Your task to perform on an android device: Clear the cart on walmart.com. Search for "rayovac triple a" on walmart.com, select the first entry, and add it to the cart. Image 0: 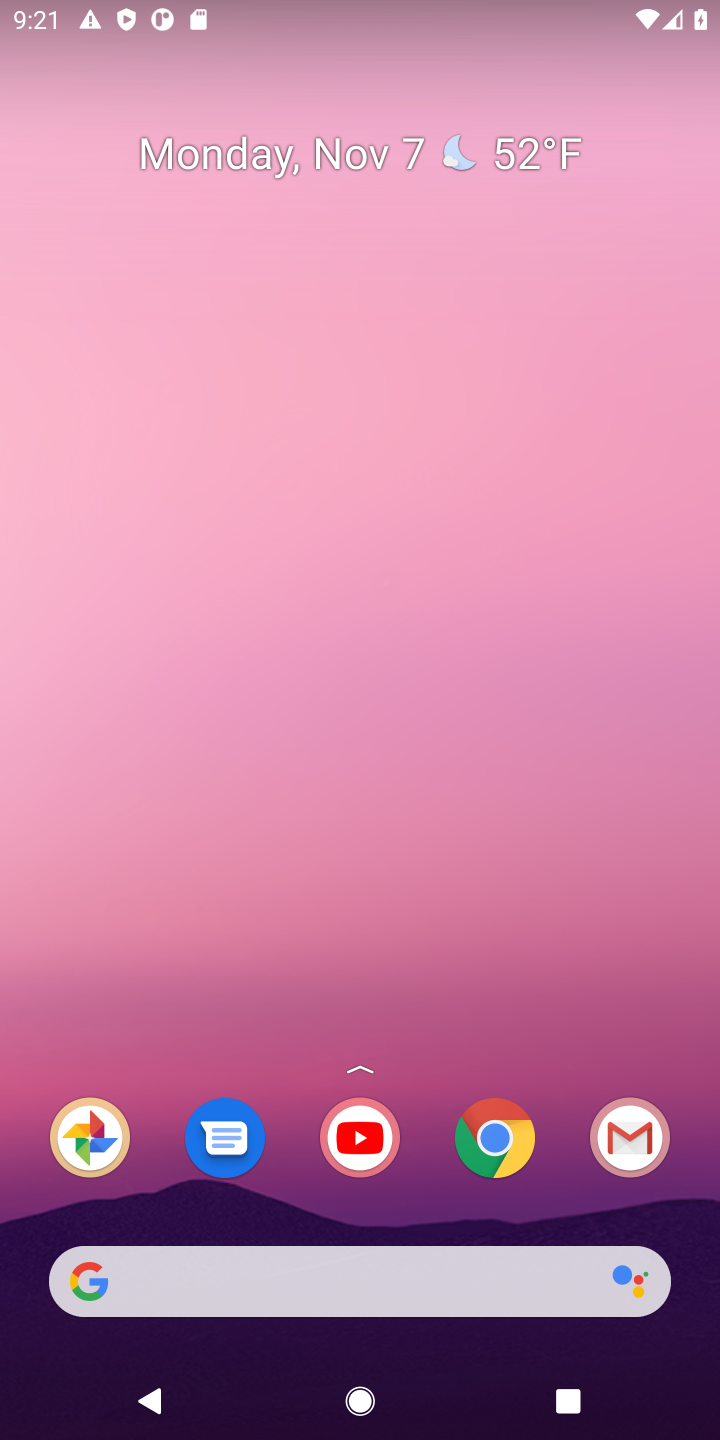
Step 0: drag from (427, 1211) to (470, 92)
Your task to perform on an android device: Clear the cart on walmart.com. Search for "rayovac triple a" on walmart.com, select the first entry, and add it to the cart. Image 1: 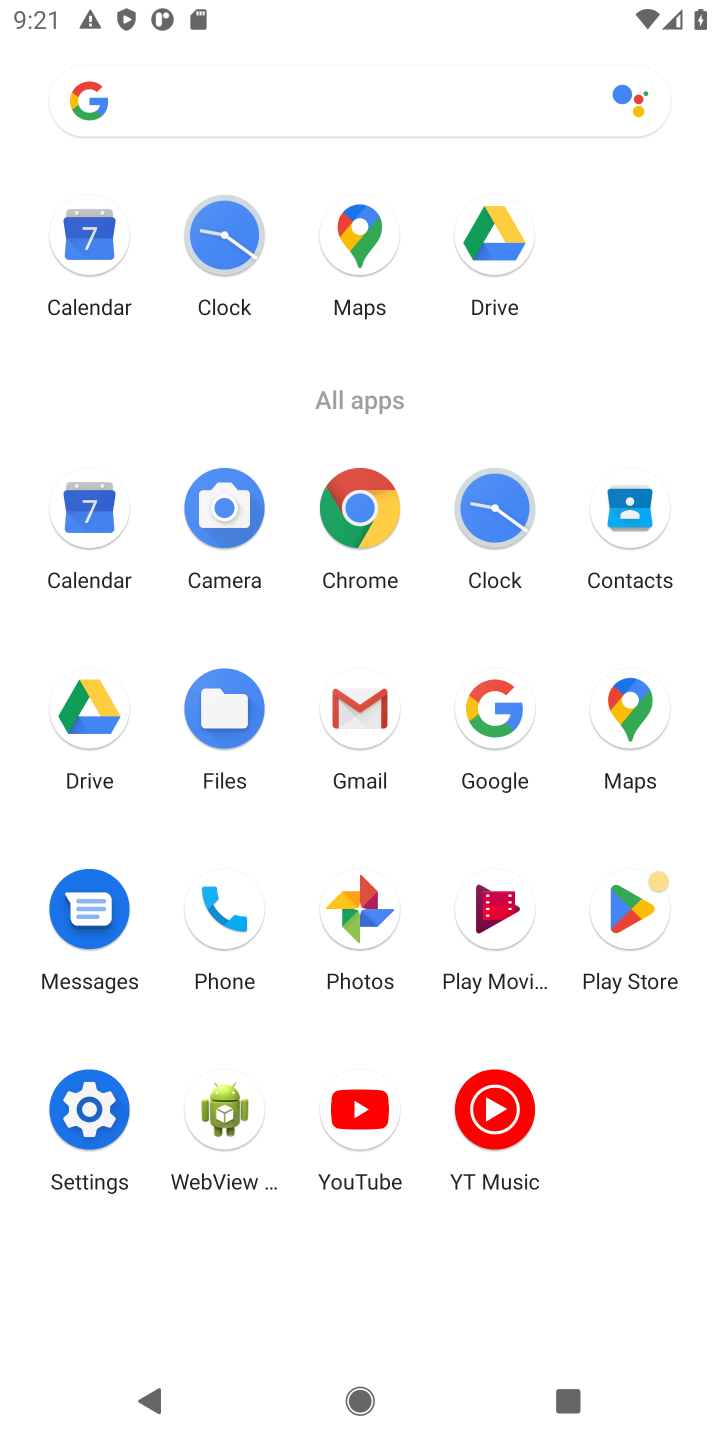
Step 1: click (359, 506)
Your task to perform on an android device: Clear the cart on walmart.com. Search for "rayovac triple a" on walmart.com, select the first entry, and add it to the cart. Image 2: 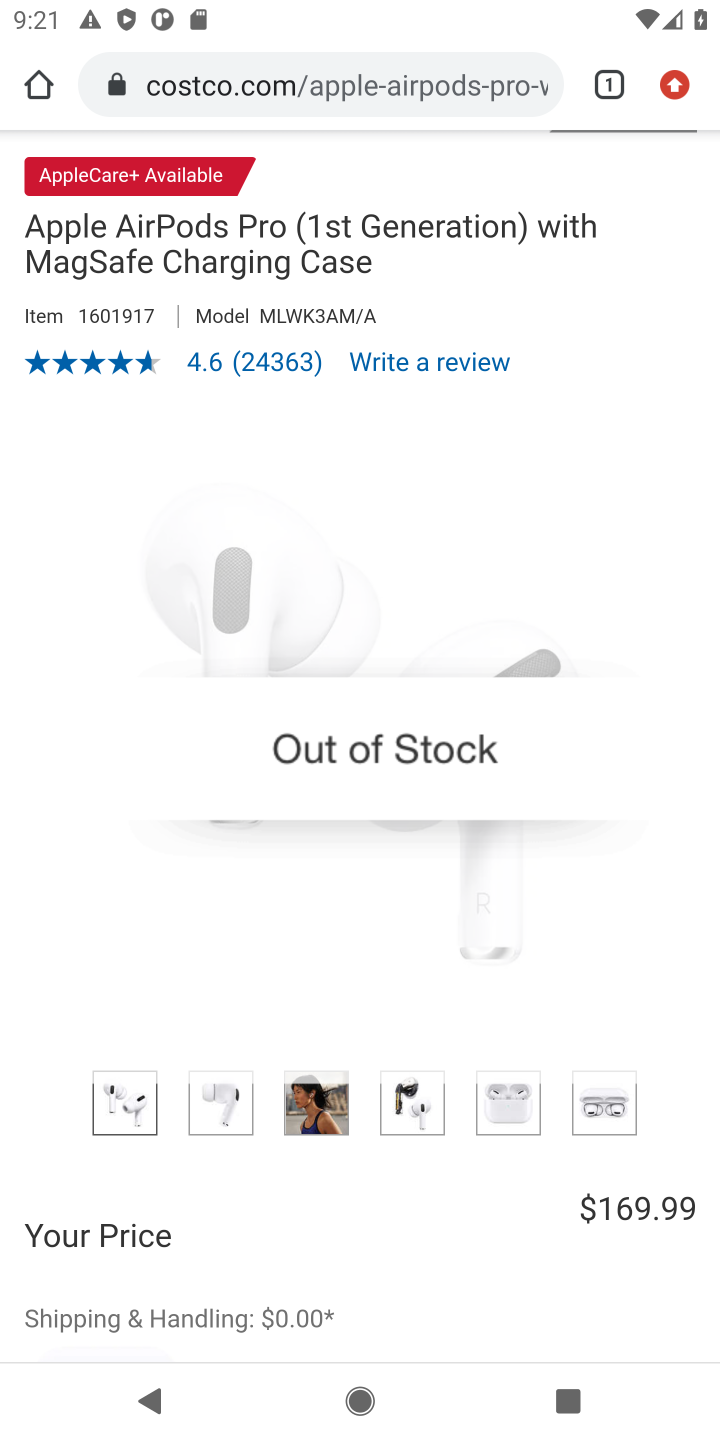
Step 2: click (448, 83)
Your task to perform on an android device: Clear the cart on walmart.com. Search for "rayovac triple a" on walmart.com, select the first entry, and add it to the cart. Image 3: 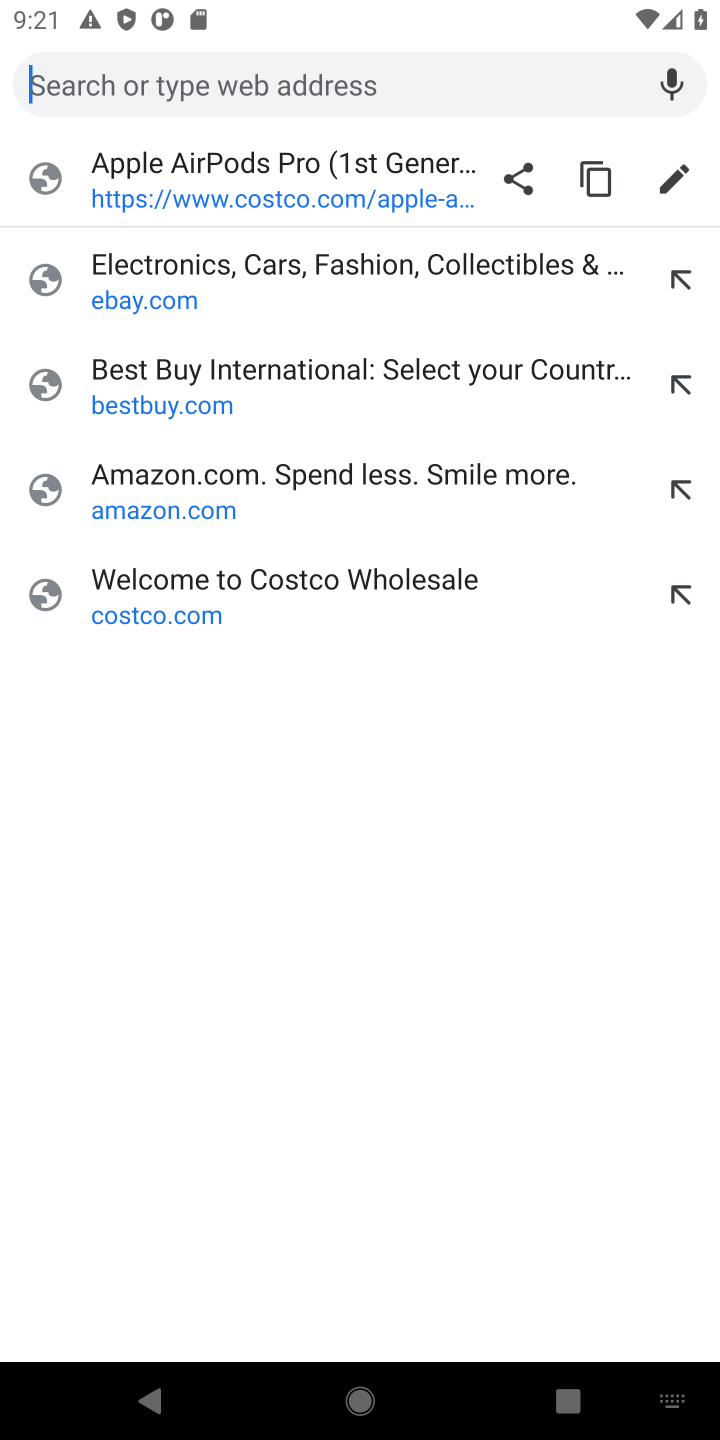
Step 3: type "walmart.com"
Your task to perform on an android device: Clear the cart on walmart.com. Search for "rayovac triple a" on walmart.com, select the first entry, and add it to the cart. Image 4: 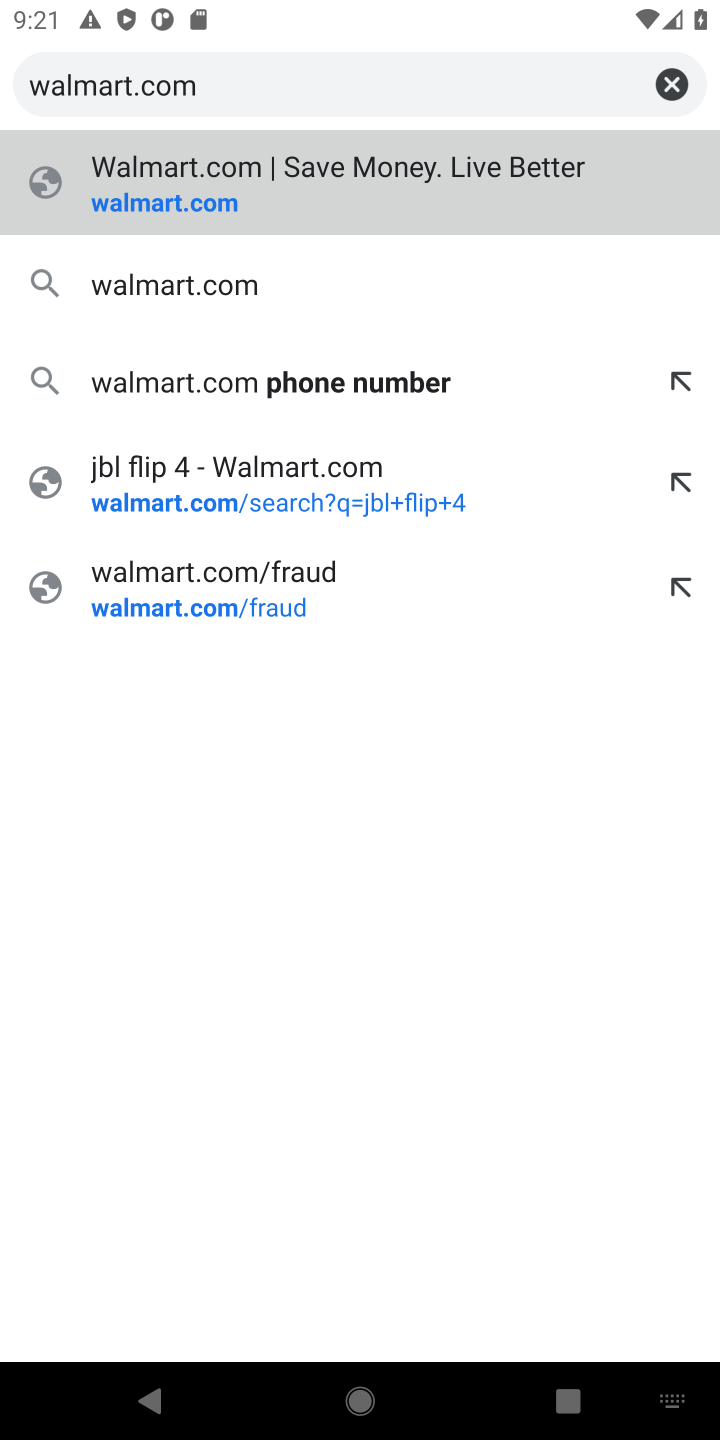
Step 4: press enter
Your task to perform on an android device: Clear the cart on walmart.com. Search for "rayovac triple a" on walmart.com, select the first entry, and add it to the cart. Image 5: 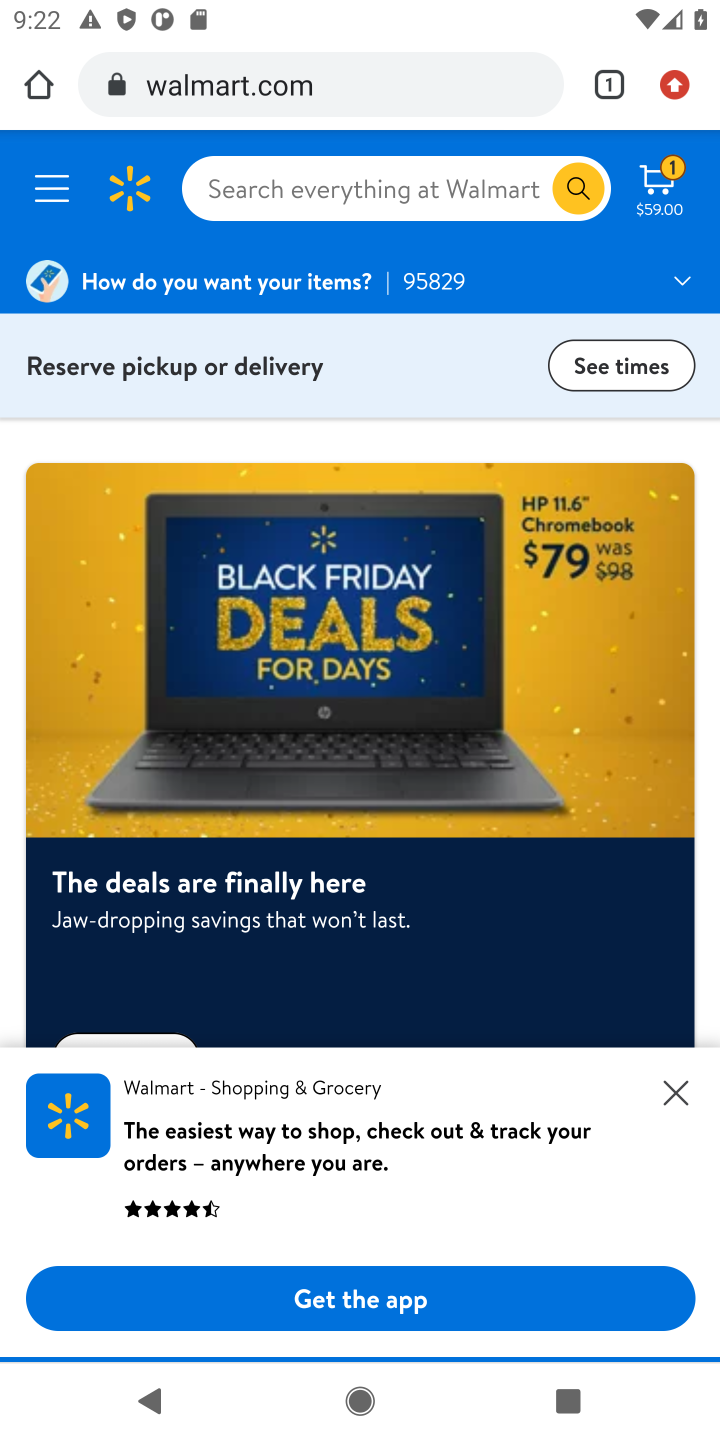
Step 5: click (658, 182)
Your task to perform on an android device: Clear the cart on walmart.com. Search for "rayovac triple a" on walmart.com, select the first entry, and add it to the cart. Image 6: 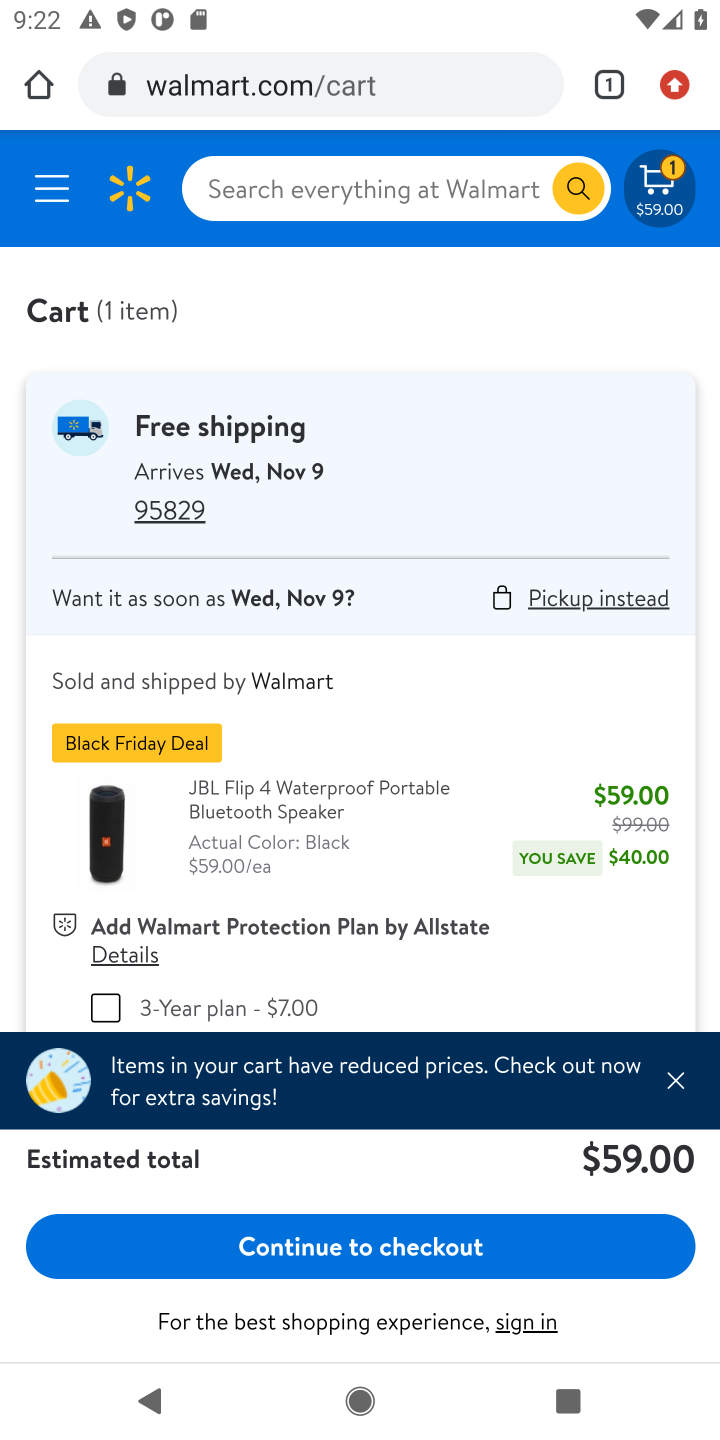
Step 6: drag from (334, 855) to (414, 392)
Your task to perform on an android device: Clear the cart on walmart.com. Search for "rayovac triple a" on walmart.com, select the first entry, and add it to the cart. Image 7: 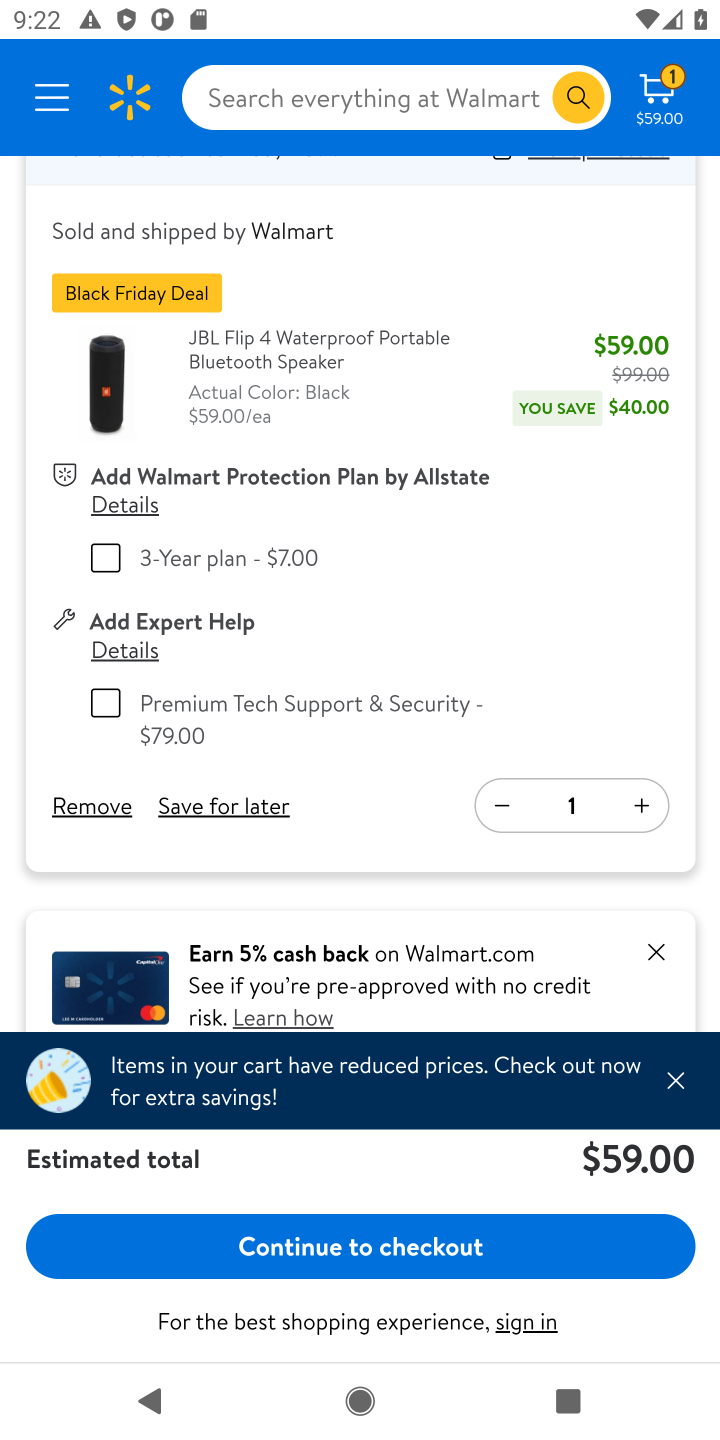
Step 7: click (92, 801)
Your task to perform on an android device: Clear the cart on walmart.com. Search for "rayovac triple a" on walmart.com, select the first entry, and add it to the cart. Image 8: 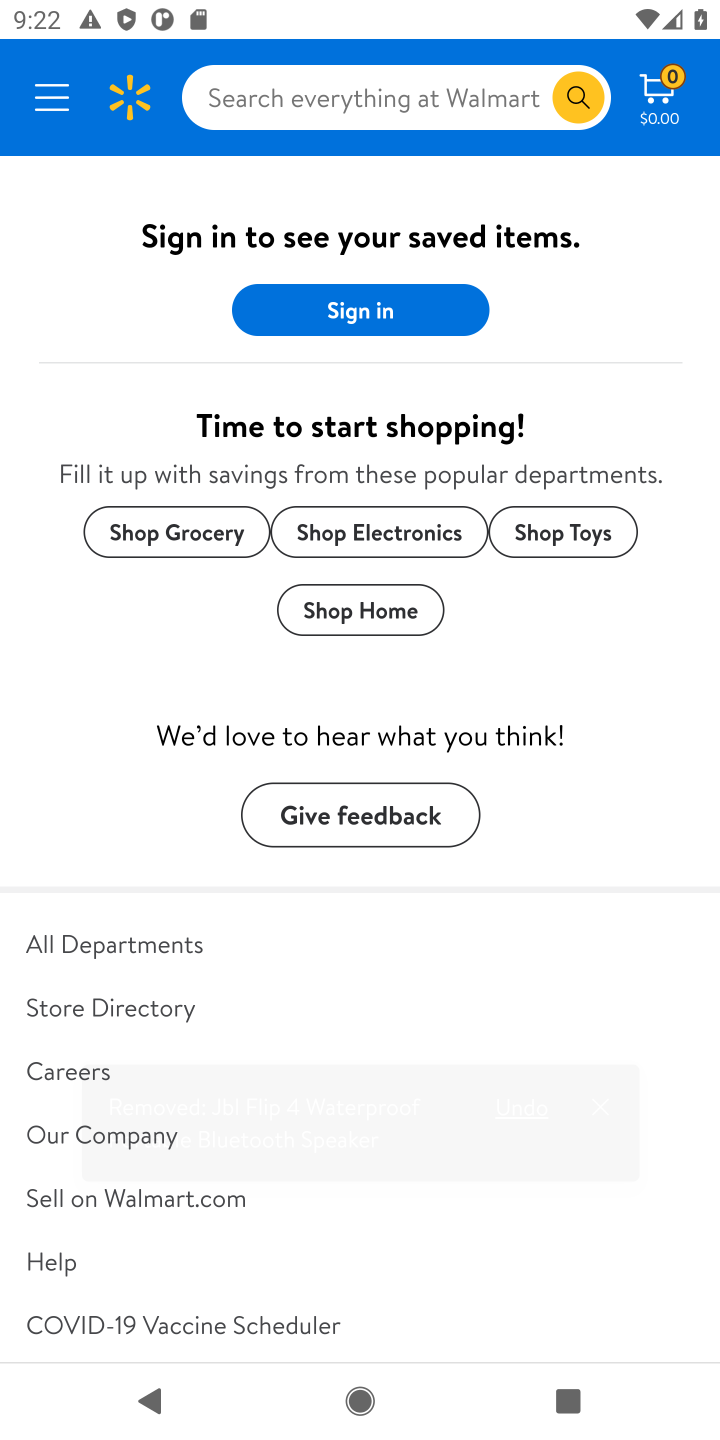
Step 8: click (411, 103)
Your task to perform on an android device: Clear the cart on walmart.com. Search for "rayovac triple a" on walmart.com, select the first entry, and add it to the cart. Image 9: 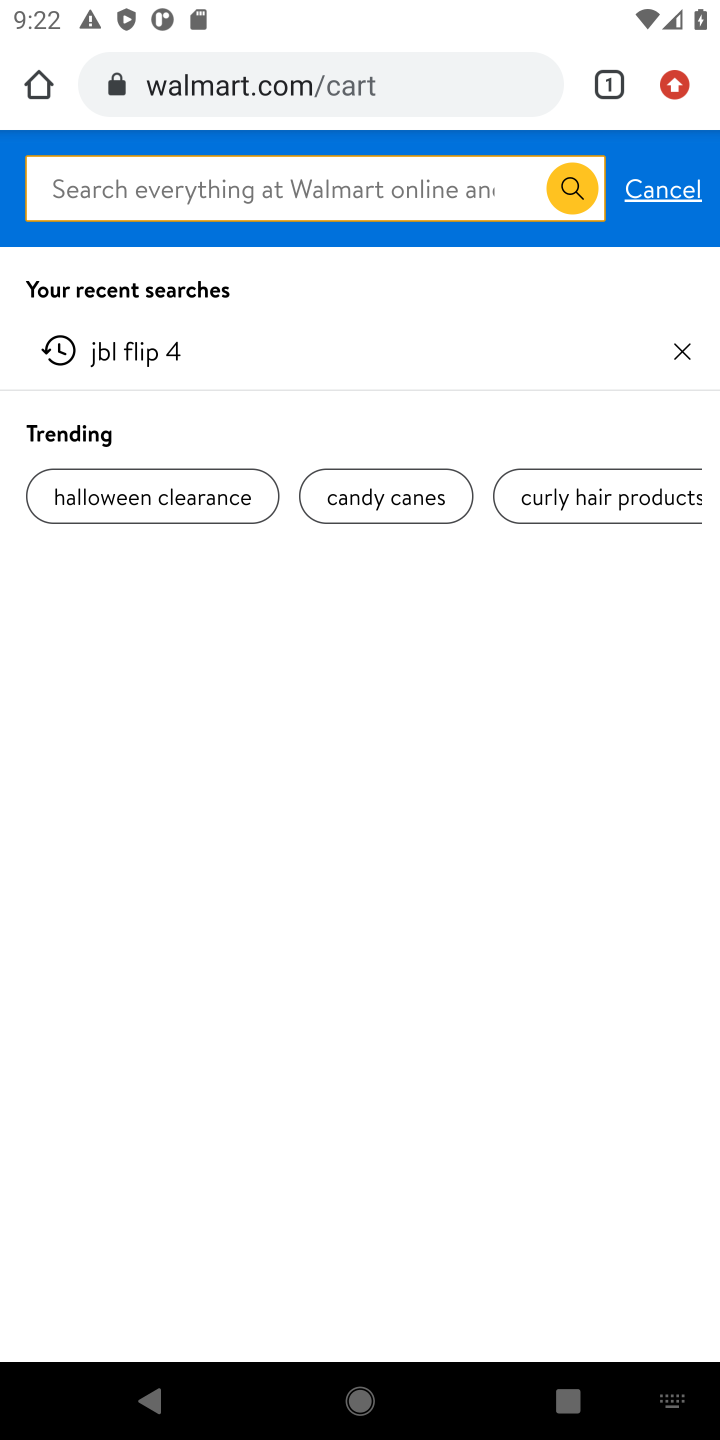
Step 9: type "rayovac triple a"
Your task to perform on an android device: Clear the cart on walmart.com. Search for "rayovac triple a" on walmart.com, select the first entry, and add it to the cart. Image 10: 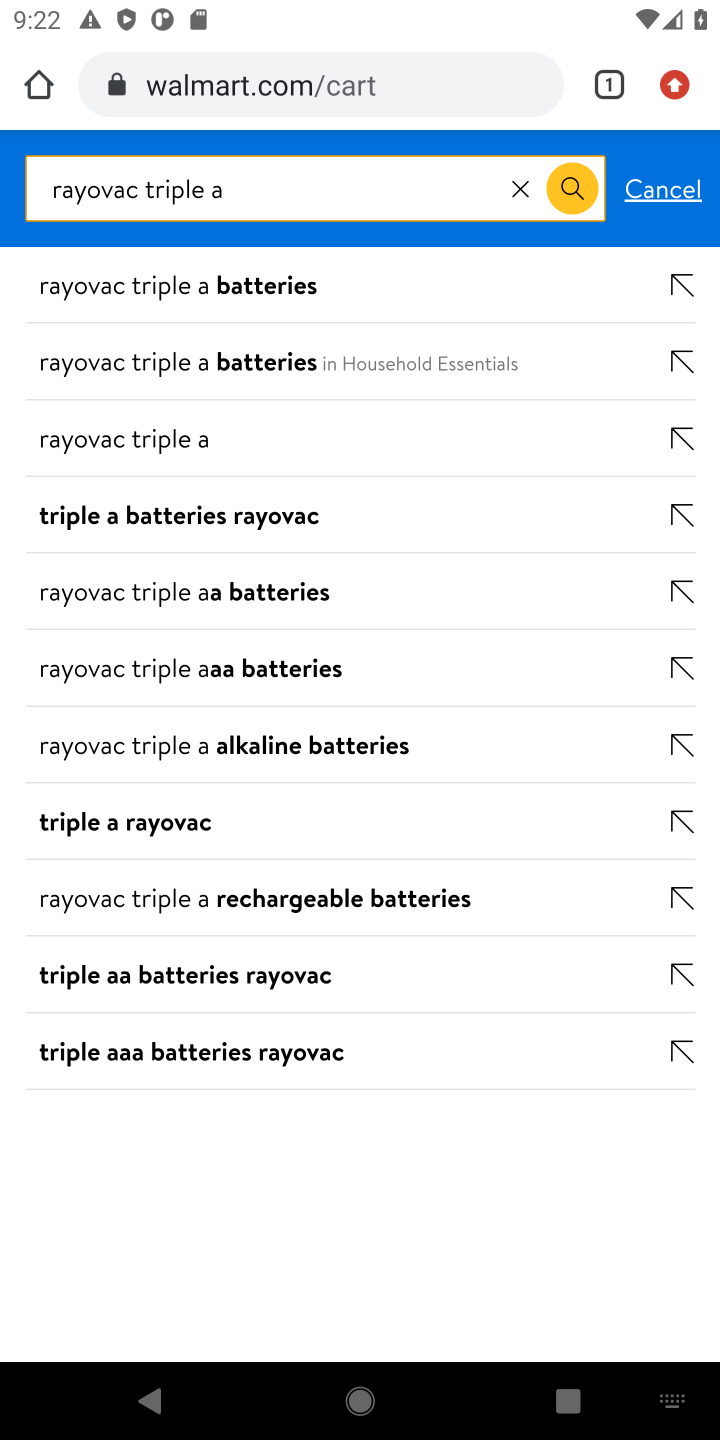
Step 10: press enter
Your task to perform on an android device: Clear the cart on walmart.com. Search for "rayovac triple a" on walmart.com, select the first entry, and add it to the cart. Image 11: 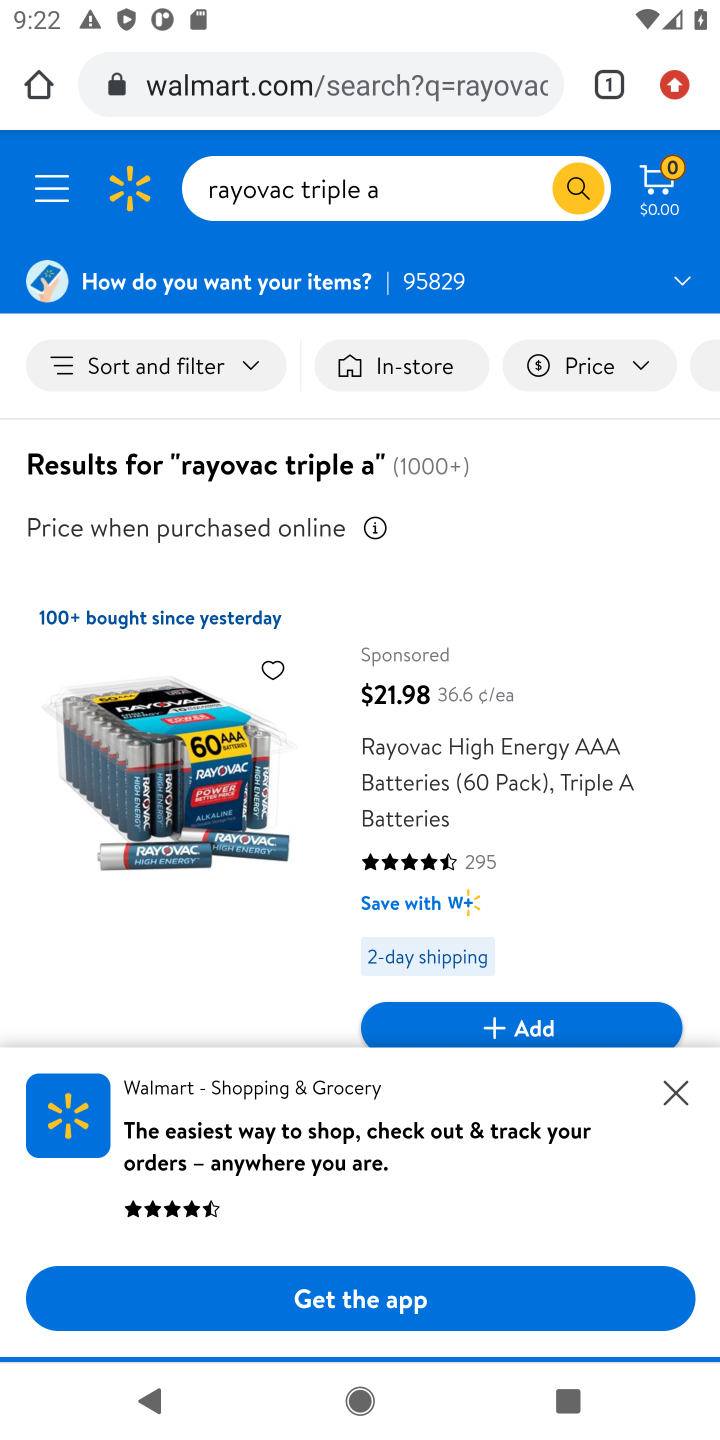
Step 11: drag from (550, 812) to (524, 316)
Your task to perform on an android device: Clear the cart on walmart.com. Search for "rayovac triple a" on walmart.com, select the first entry, and add it to the cart. Image 12: 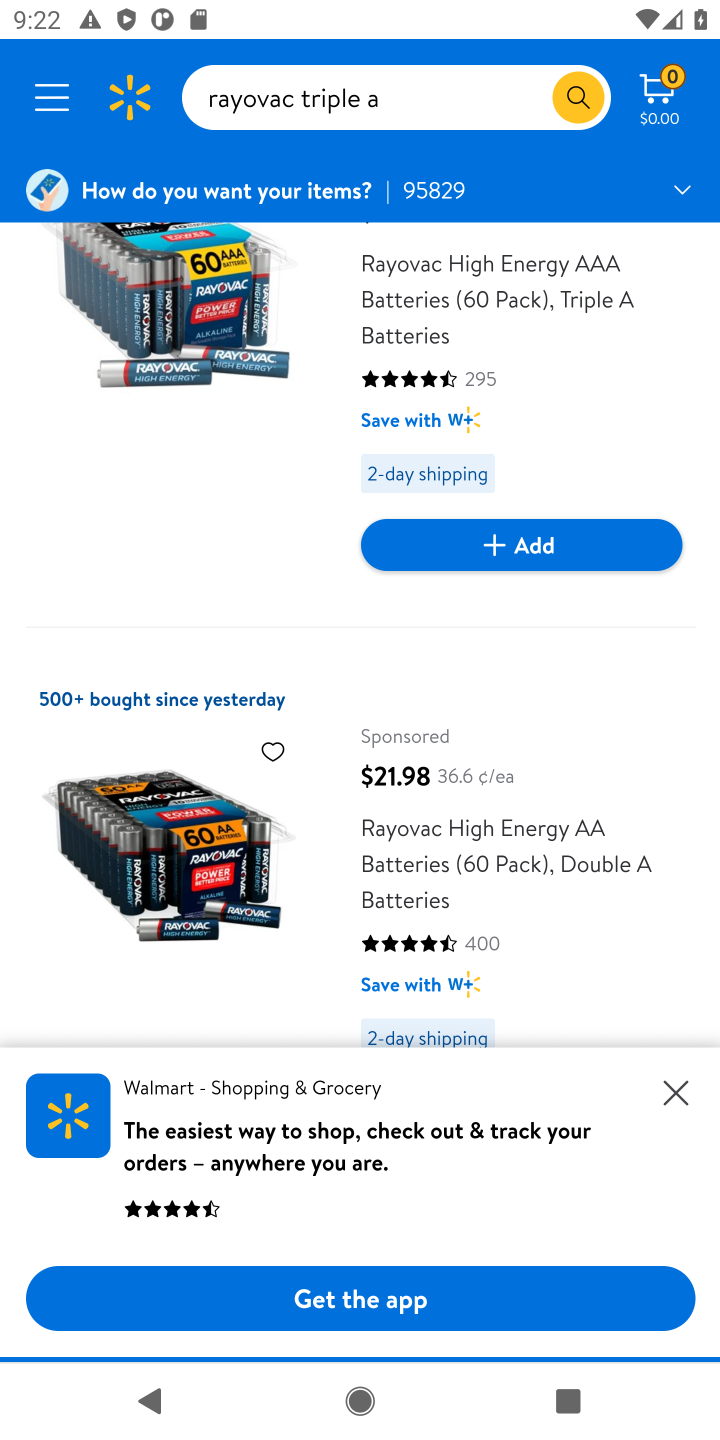
Step 12: drag from (601, 948) to (550, 647)
Your task to perform on an android device: Clear the cart on walmart.com. Search for "rayovac triple a" on walmart.com, select the first entry, and add it to the cart. Image 13: 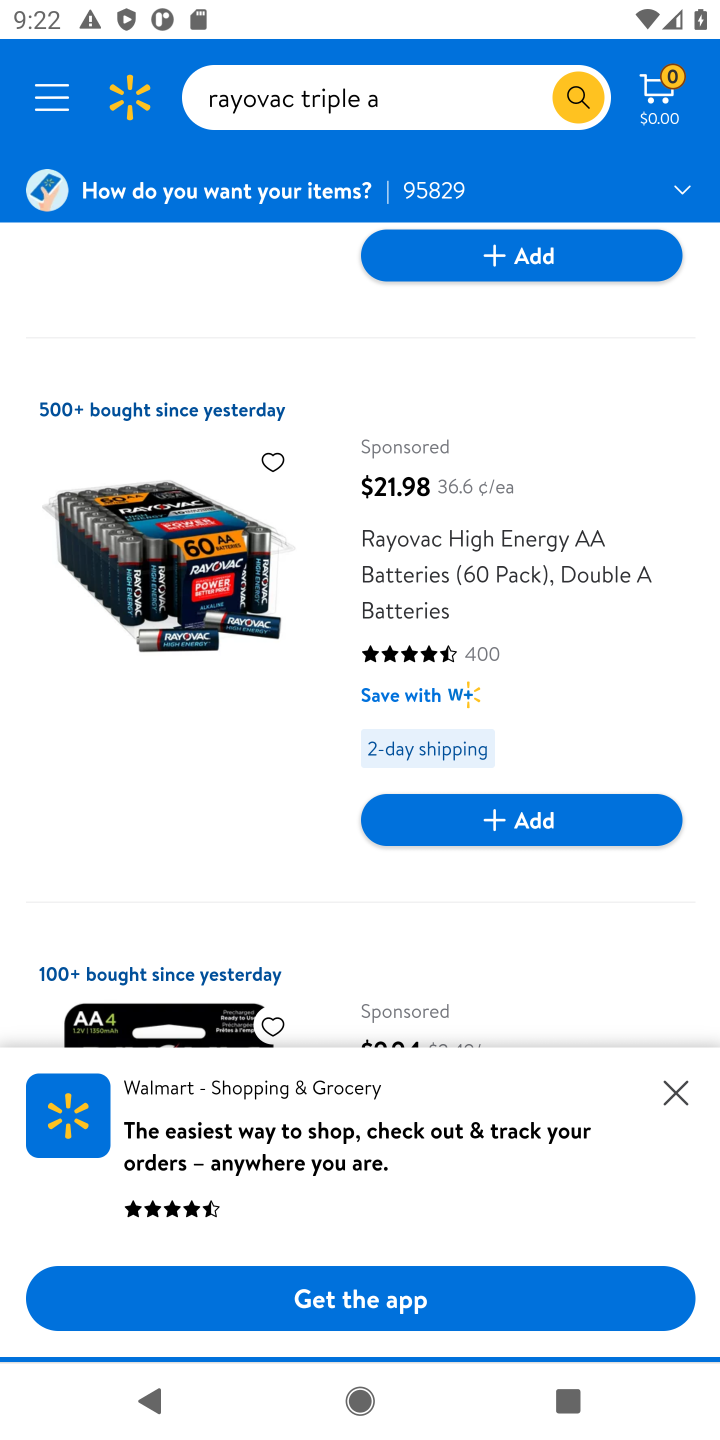
Step 13: click (561, 820)
Your task to perform on an android device: Clear the cart on walmart.com. Search for "rayovac triple a" on walmart.com, select the first entry, and add it to the cart. Image 14: 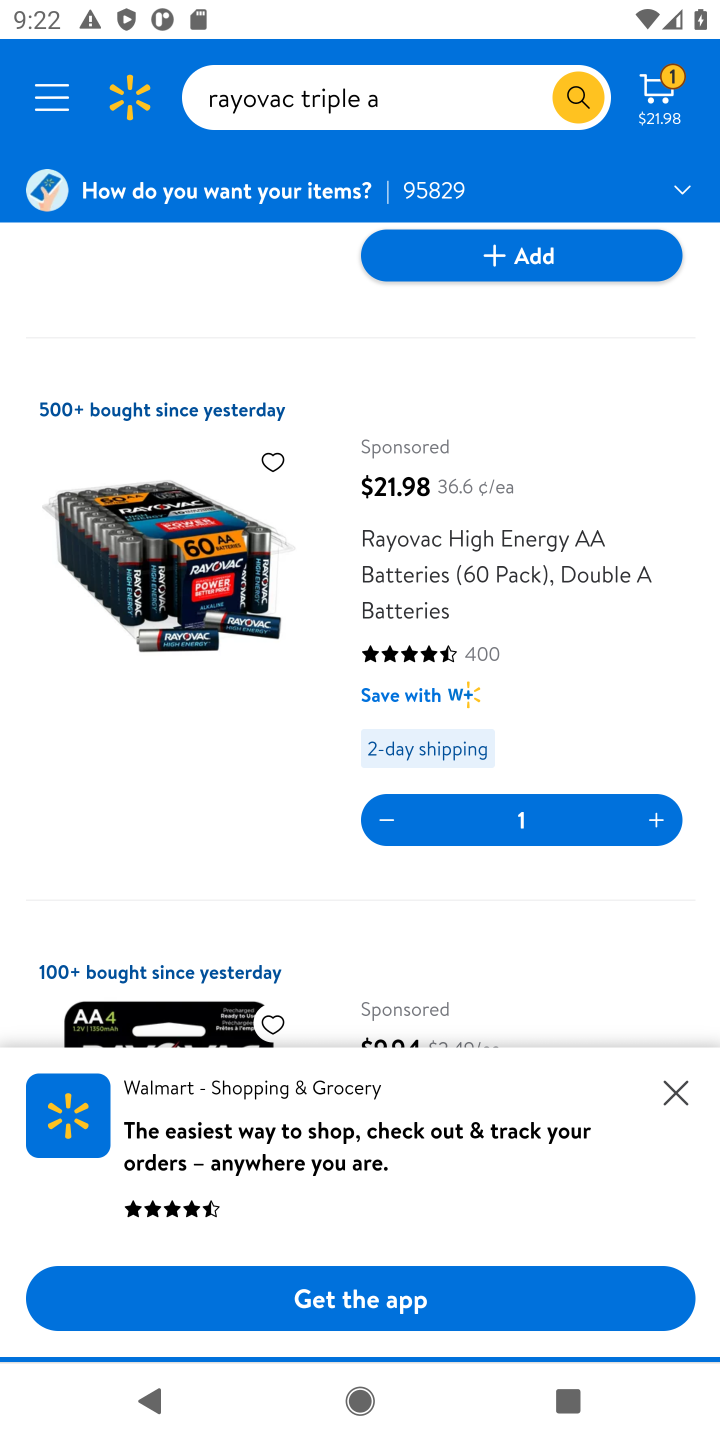
Step 14: drag from (561, 820) to (534, 380)
Your task to perform on an android device: Clear the cart on walmart.com. Search for "rayovac triple a" on walmart.com, select the first entry, and add it to the cart. Image 15: 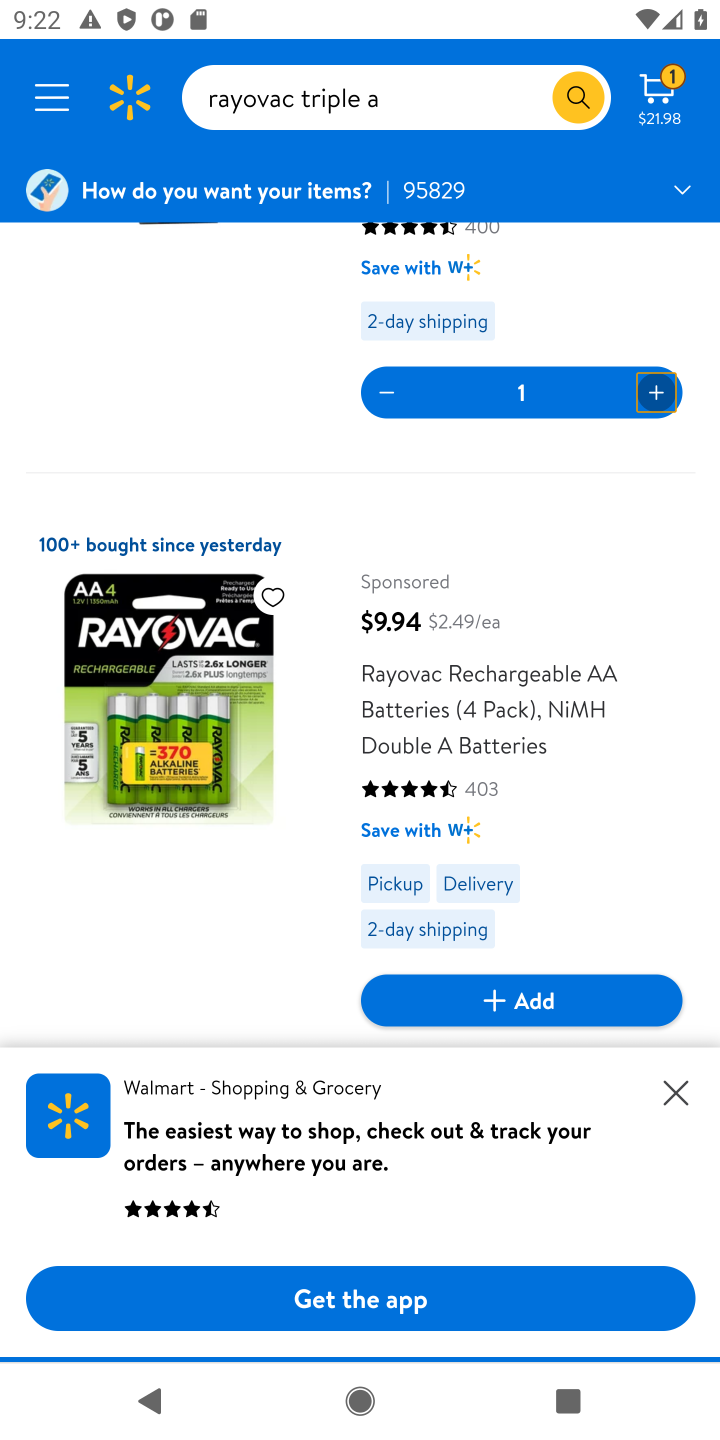
Step 15: click (392, 405)
Your task to perform on an android device: Clear the cart on walmart.com. Search for "rayovac triple a" on walmart.com, select the first entry, and add it to the cart. Image 16: 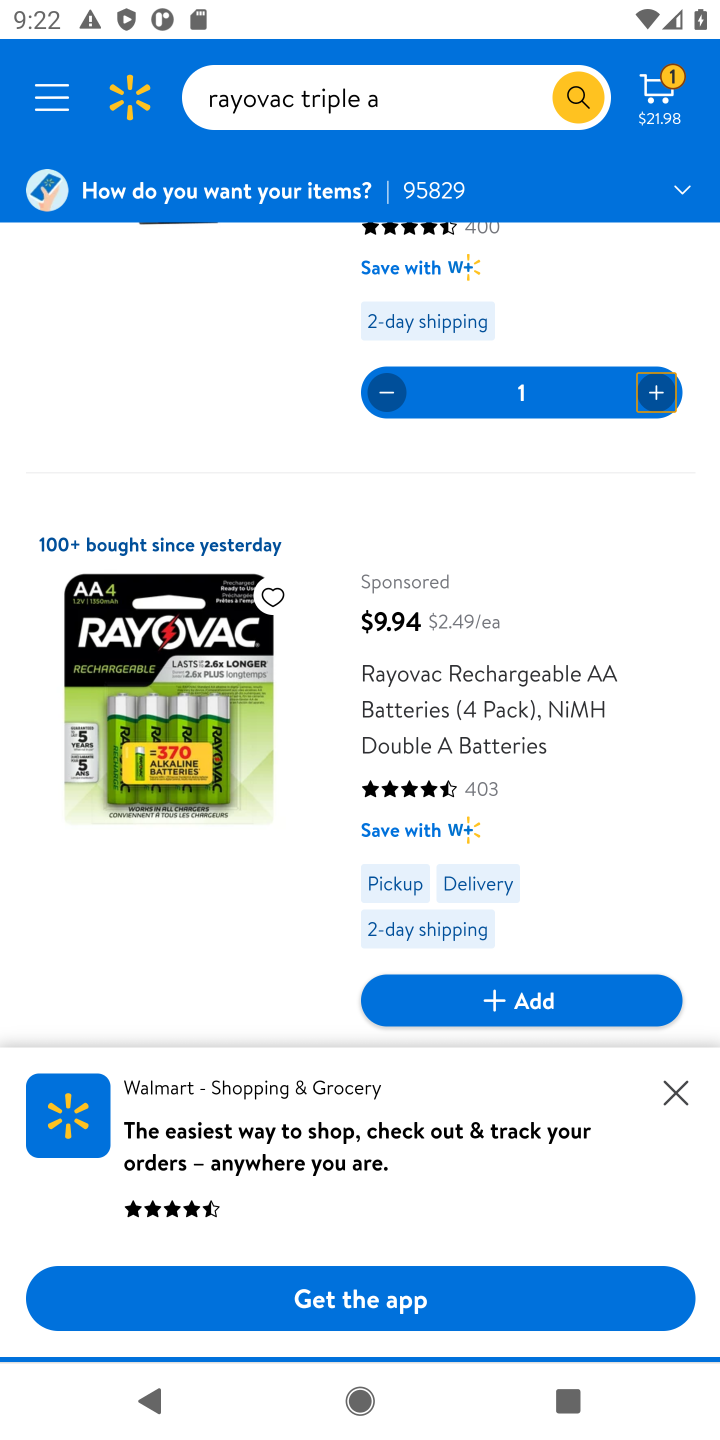
Step 16: drag from (522, 932) to (496, 254)
Your task to perform on an android device: Clear the cart on walmart.com. Search for "rayovac triple a" on walmart.com, select the first entry, and add it to the cart. Image 17: 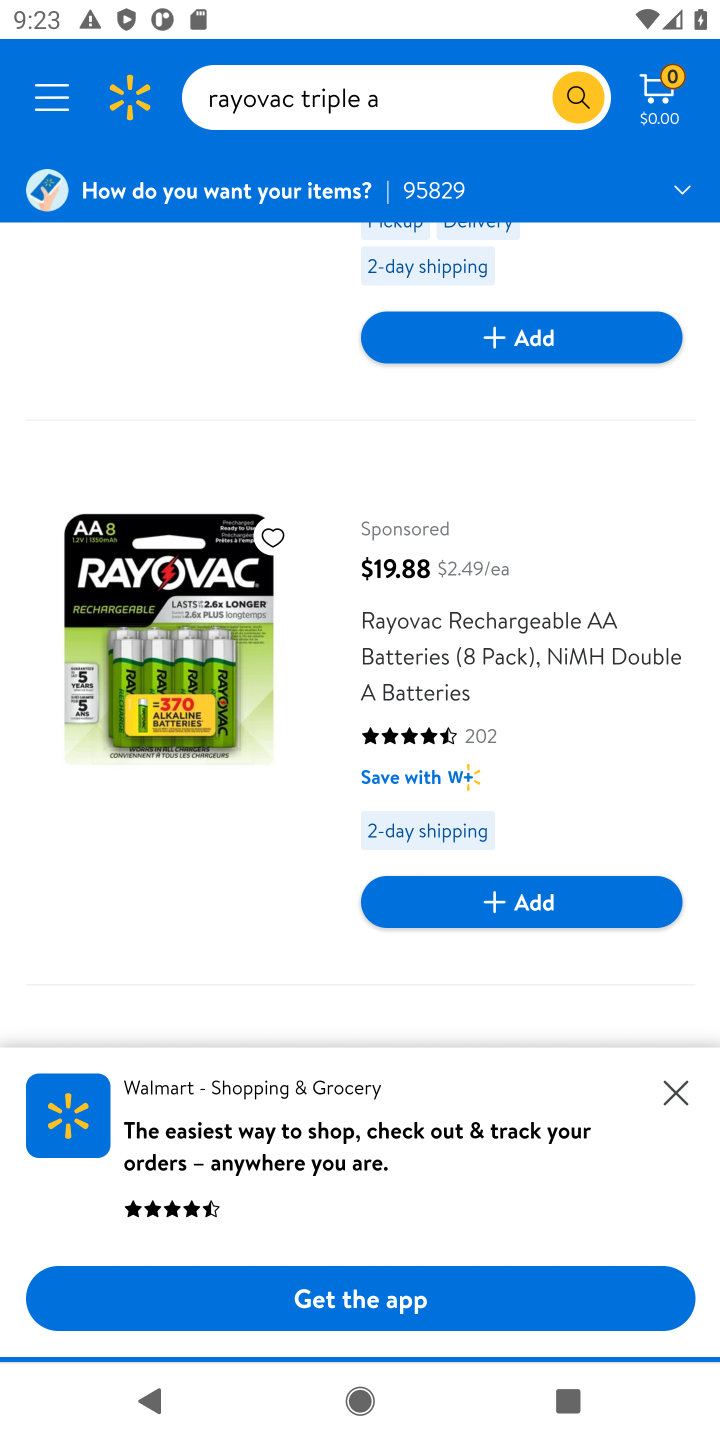
Step 17: drag from (597, 1004) to (528, 158)
Your task to perform on an android device: Clear the cart on walmart.com. Search for "rayovac triple a" on walmart.com, select the first entry, and add it to the cart. Image 18: 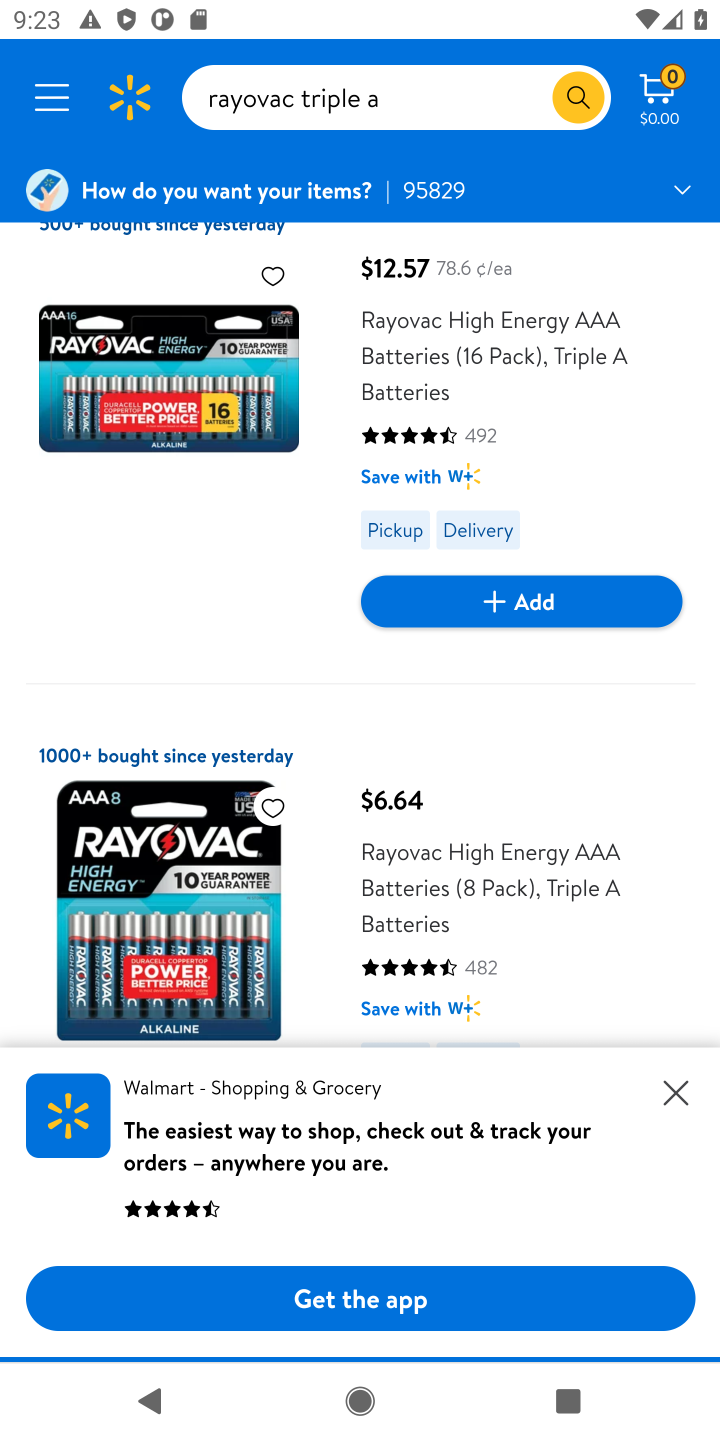
Step 18: drag from (619, 431) to (615, 604)
Your task to perform on an android device: Clear the cart on walmart.com. Search for "rayovac triple a" on walmart.com, select the first entry, and add it to the cart. Image 19: 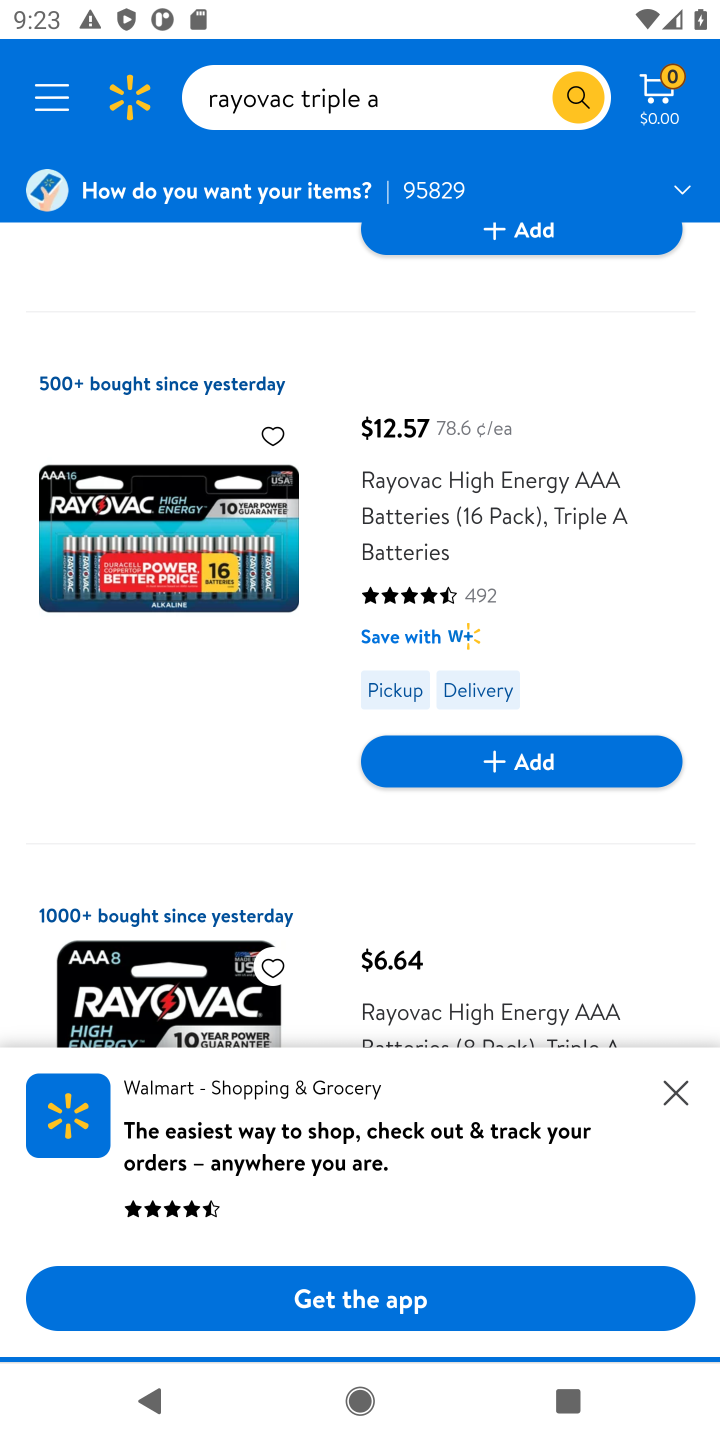
Step 19: click (534, 772)
Your task to perform on an android device: Clear the cart on walmart.com. Search for "rayovac triple a" on walmart.com, select the first entry, and add it to the cart. Image 20: 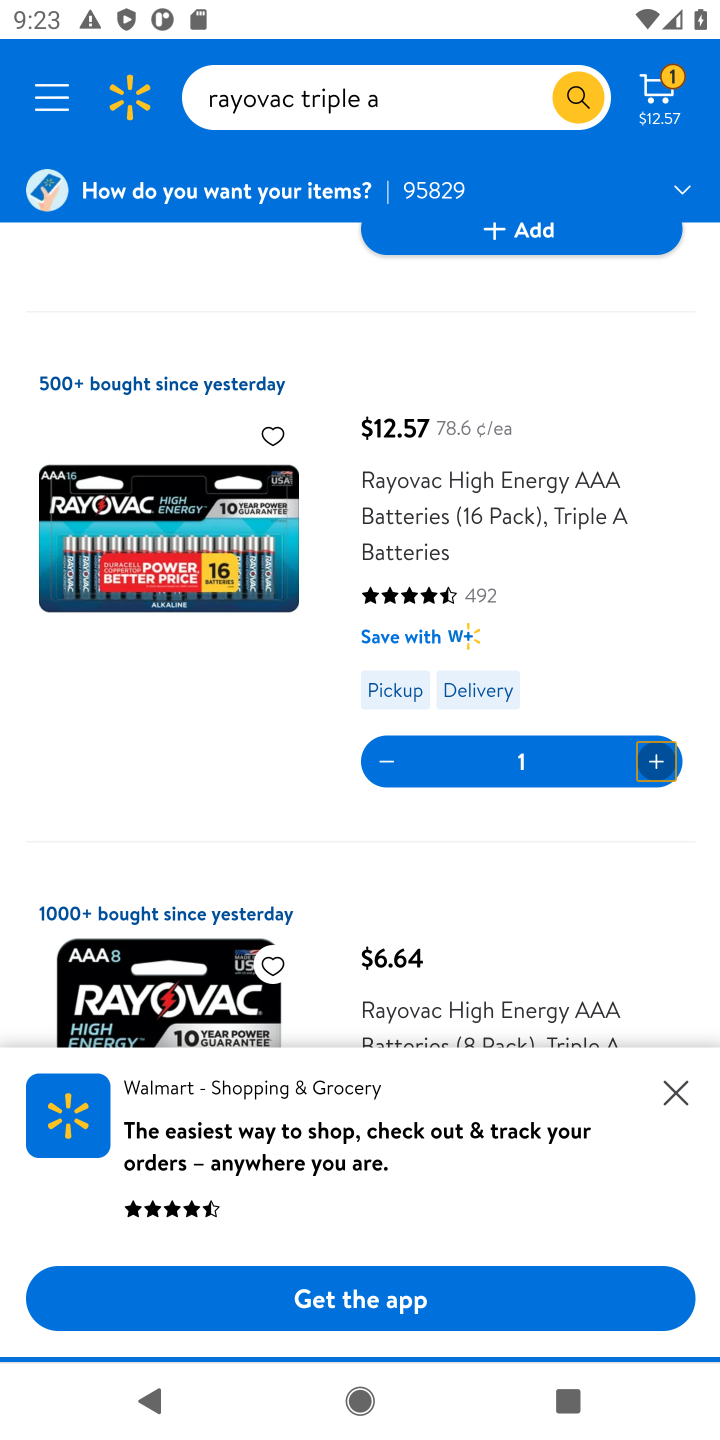
Step 20: task complete